Your task to perform on an android device: choose inbox layout in the gmail app Image 0: 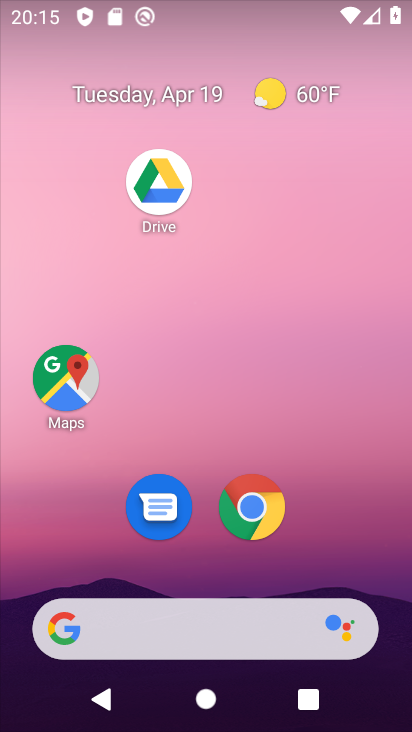
Step 0: drag from (341, 491) to (360, 121)
Your task to perform on an android device: choose inbox layout in the gmail app Image 1: 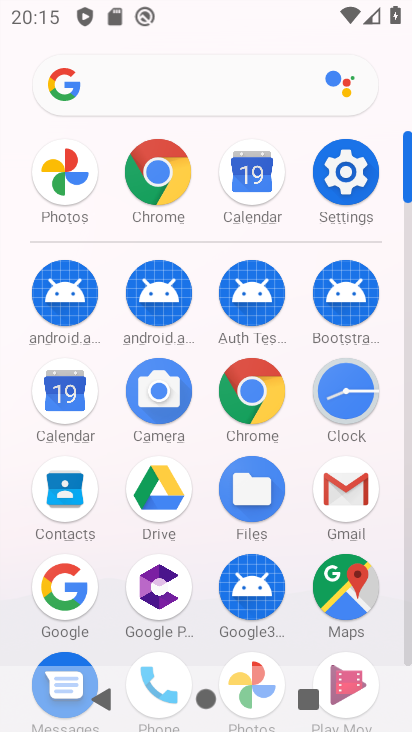
Step 1: click (353, 488)
Your task to perform on an android device: choose inbox layout in the gmail app Image 2: 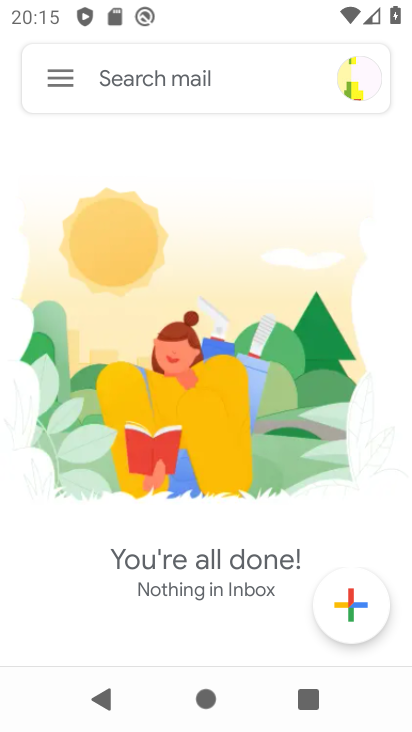
Step 2: click (60, 73)
Your task to perform on an android device: choose inbox layout in the gmail app Image 3: 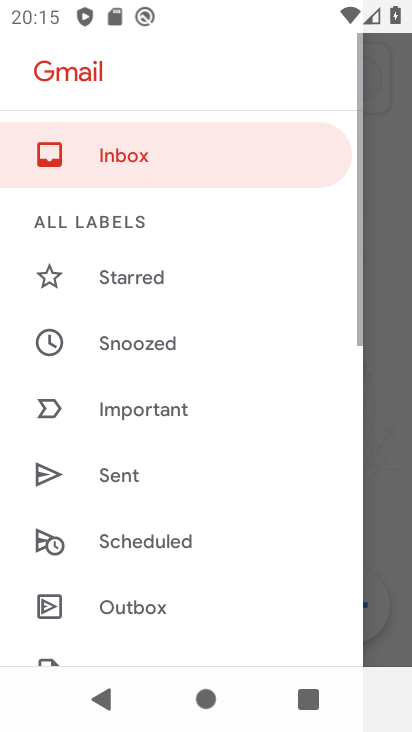
Step 3: drag from (182, 508) to (171, 161)
Your task to perform on an android device: choose inbox layout in the gmail app Image 4: 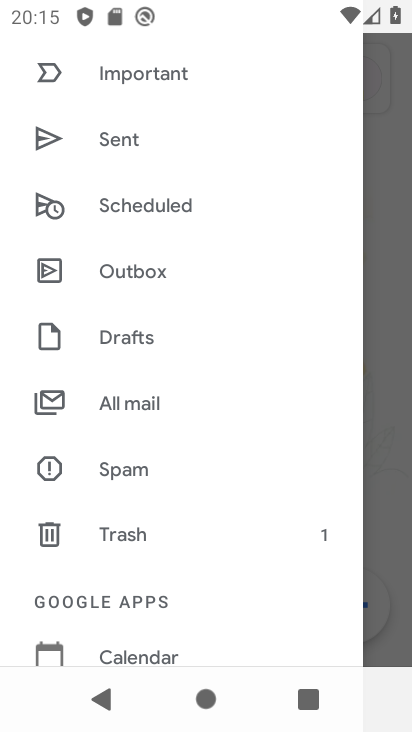
Step 4: drag from (227, 489) to (225, 123)
Your task to perform on an android device: choose inbox layout in the gmail app Image 5: 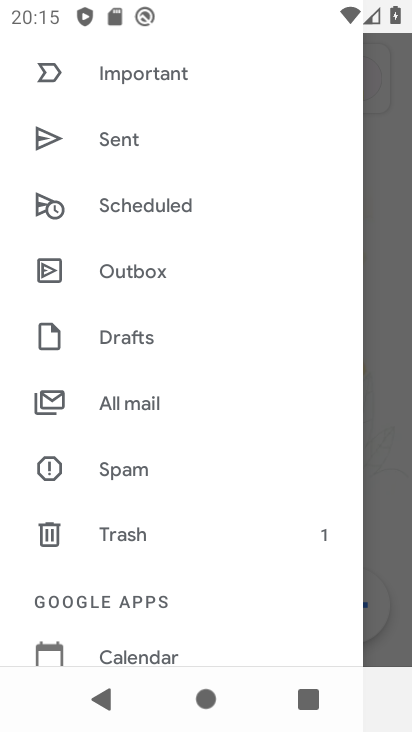
Step 5: drag from (225, 486) to (206, 145)
Your task to perform on an android device: choose inbox layout in the gmail app Image 6: 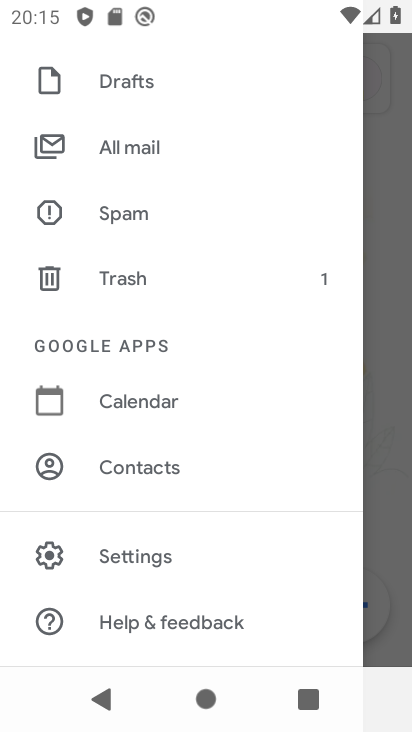
Step 6: click (149, 547)
Your task to perform on an android device: choose inbox layout in the gmail app Image 7: 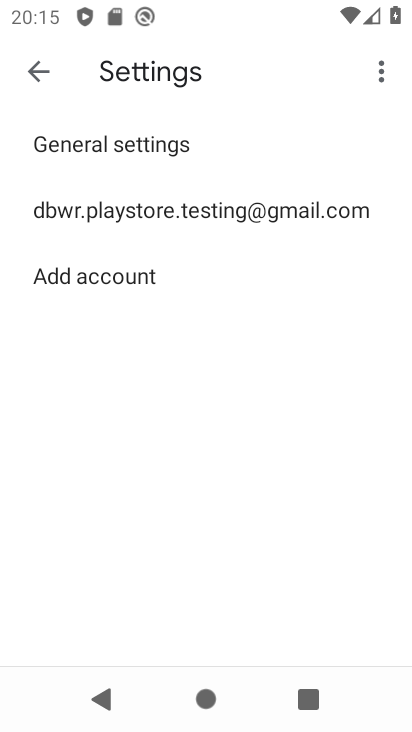
Step 7: click (275, 202)
Your task to perform on an android device: choose inbox layout in the gmail app Image 8: 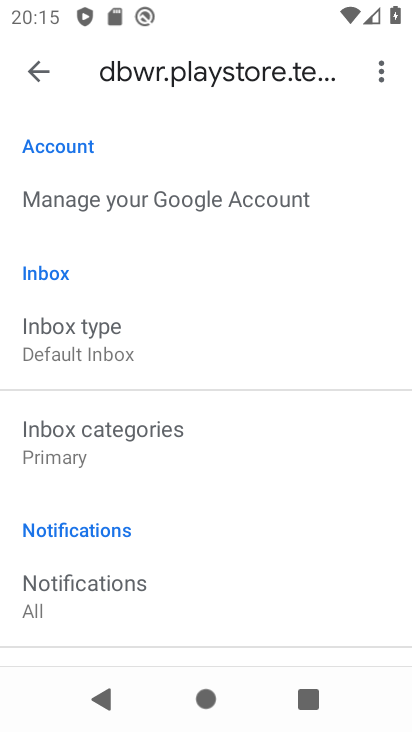
Step 8: click (124, 353)
Your task to perform on an android device: choose inbox layout in the gmail app Image 9: 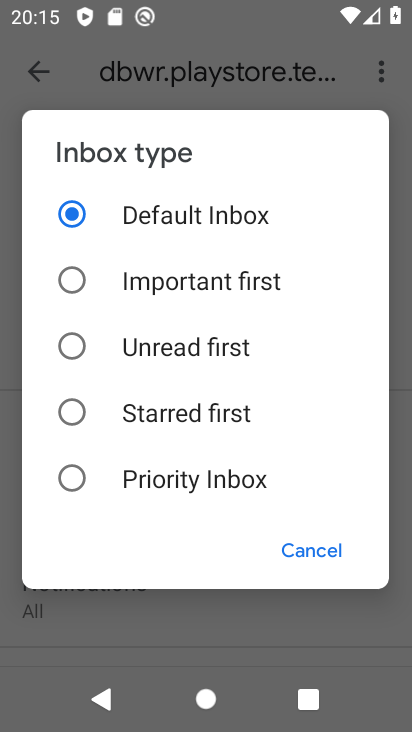
Step 9: click (116, 278)
Your task to perform on an android device: choose inbox layout in the gmail app Image 10: 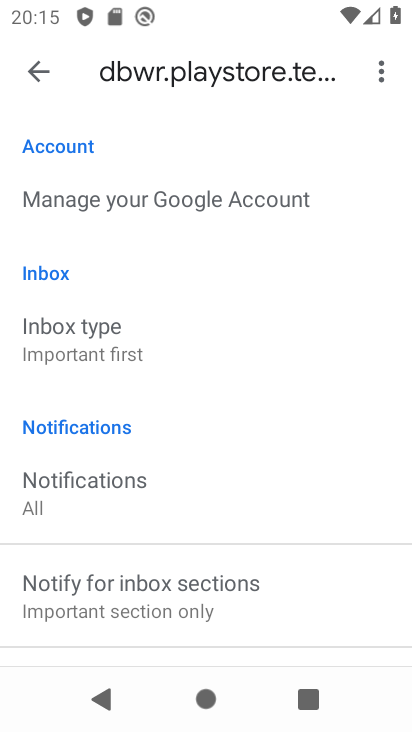
Step 10: task complete